Your task to perform on an android device: open app "Walmart Shopping & Grocery" (install if not already installed) and go to login screen Image 0: 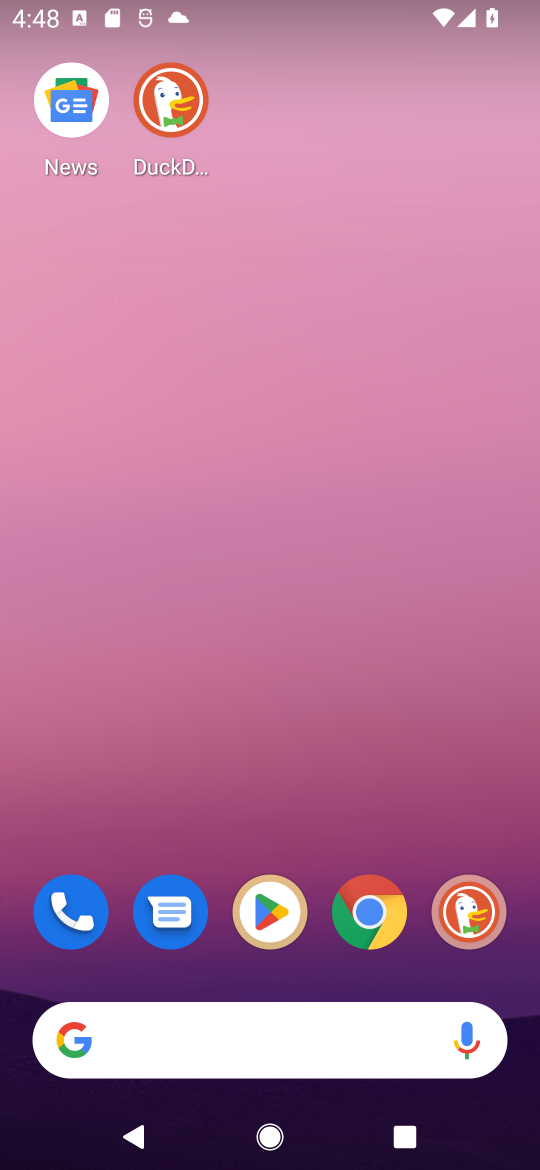
Step 0: drag from (239, 1043) to (384, 52)
Your task to perform on an android device: open app "Walmart Shopping & Grocery" (install if not already installed) and go to login screen Image 1: 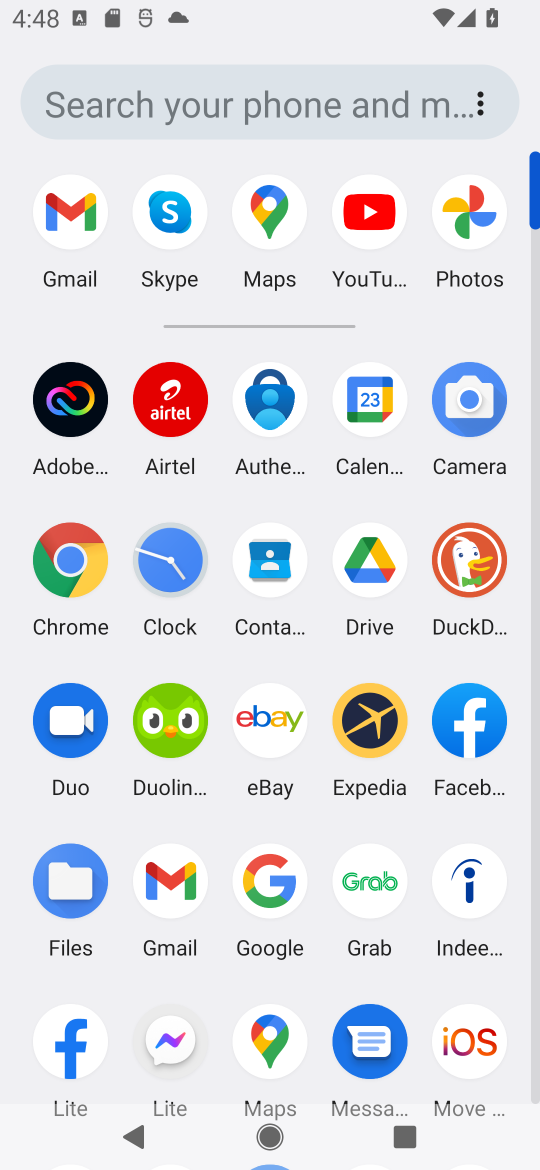
Step 1: drag from (193, 971) to (319, 452)
Your task to perform on an android device: open app "Walmart Shopping & Grocery" (install if not already installed) and go to login screen Image 2: 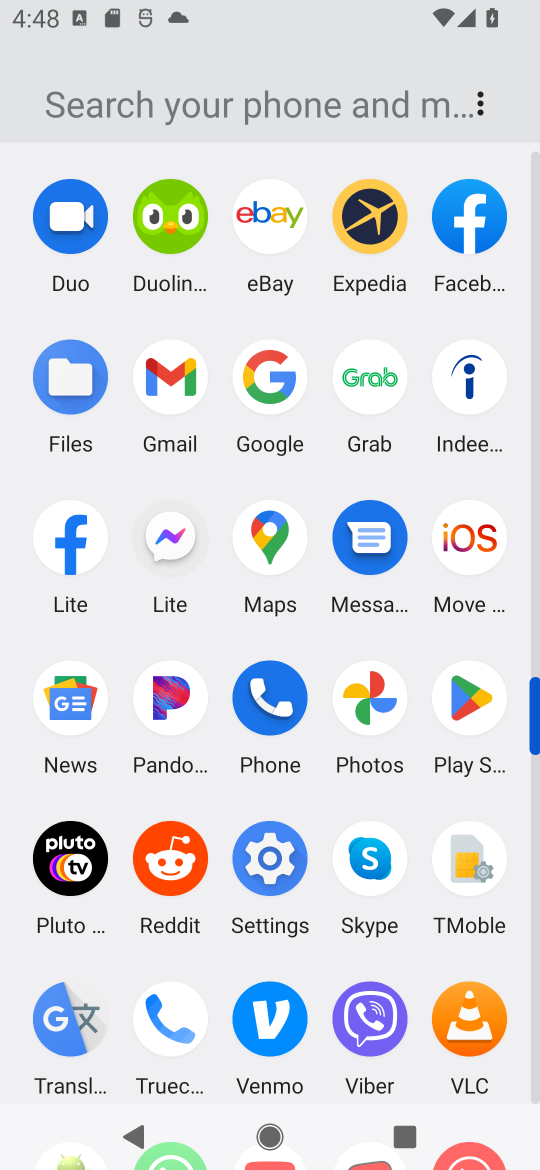
Step 2: drag from (307, 965) to (318, 645)
Your task to perform on an android device: open app "Walmart Shopping & Grocery" (install if not already installed) and go to login screen Image 3: 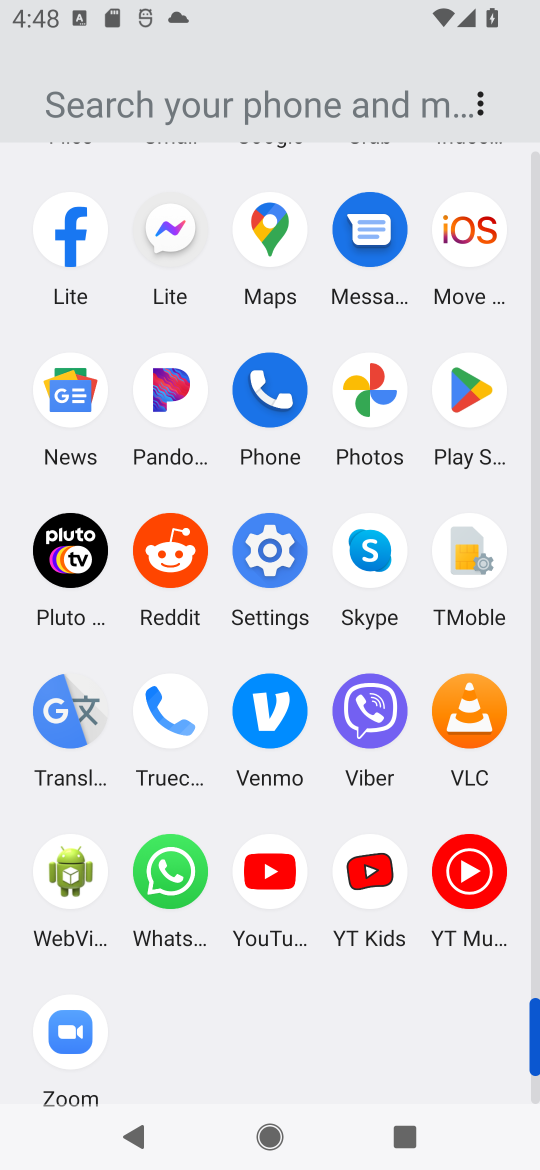
Step 3: click (467, 390)
Your task to perform on an android device: open app "Walmart Shopping & Grocery" (install if not already installed) and go to login screen Image 4: 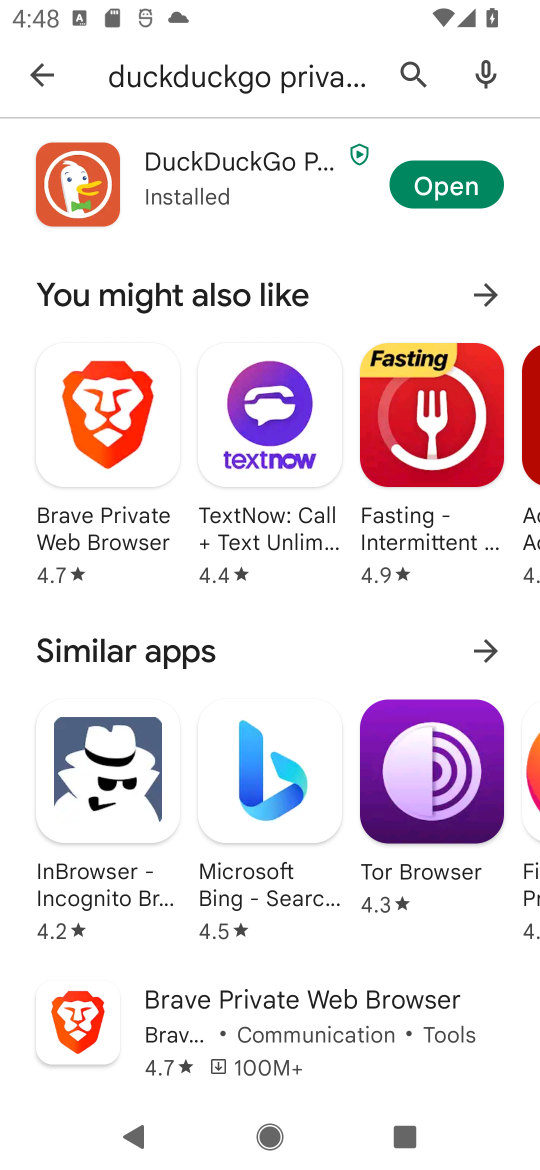
Step 4: press back button
Your task to perform on an android device: open app "Walmart Shopping & Grocery" (install if not already installed) and go to login screen Image 5: 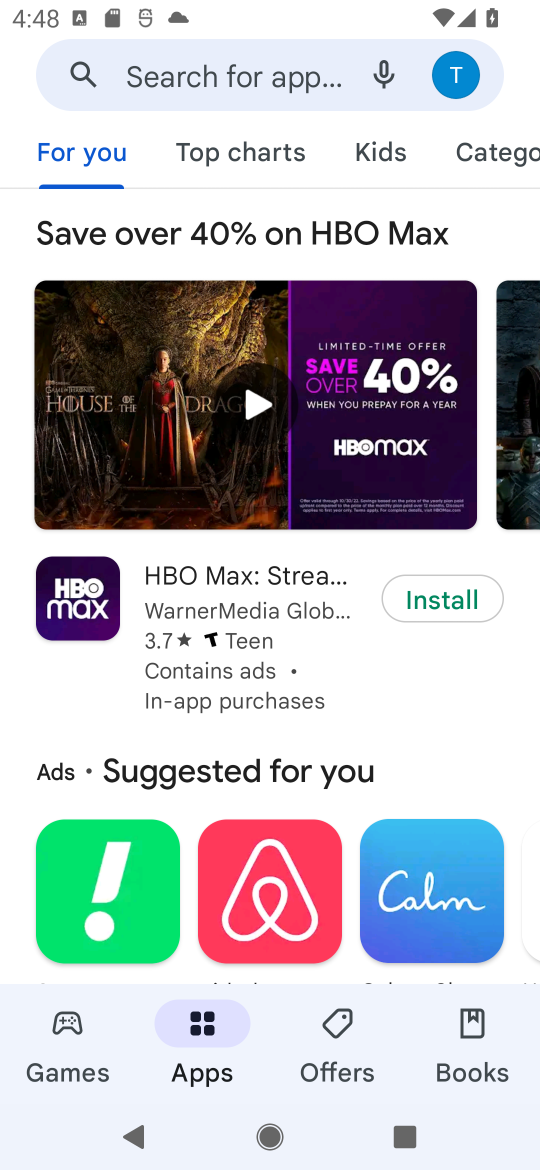
Step 5: click (264, 55)
Your task to perform on an android device: open app "Walmart Shopping & Grocery" (install if not already installed) and go to login screen Image 6: 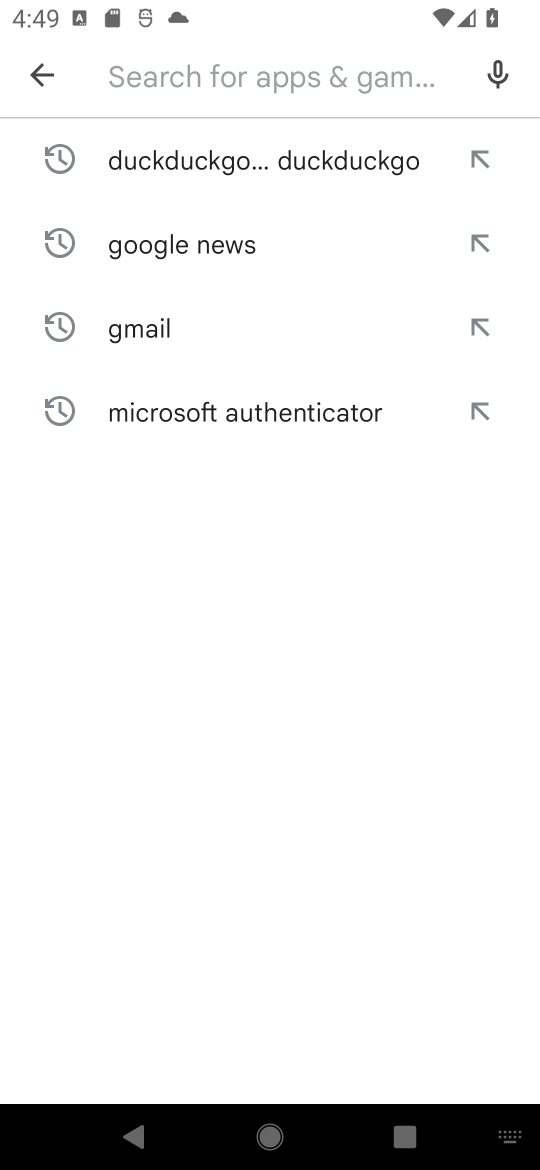
Step 6: type "Walmart Shopping & Grocery"
Your task to perform on an android device: open app "Walmart Shopping & Grocery" (install if not already installed) and go to login screen Image 7: 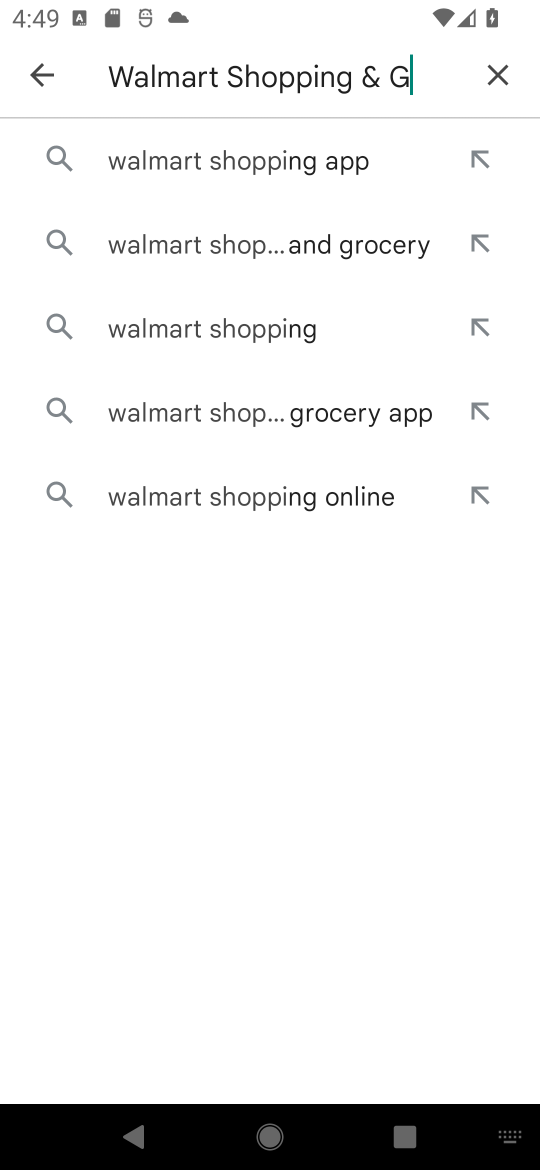
Step 7: type ""
Your task to perform on an android device: open app "Walmart Shopping & Grocery" (install if not already installed) and go to login screen Image 8: 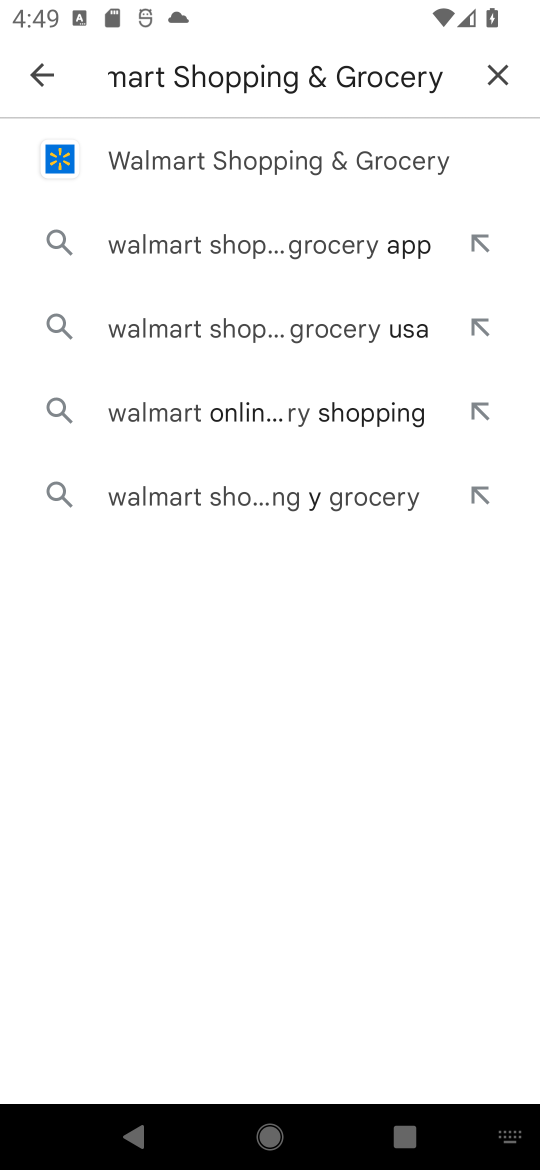
Step 8: click (145, 162)
Your task to perform on an android device: open app "Walmart Shopping & Grocery" (install if not already installed) and go to login screen Image 9: 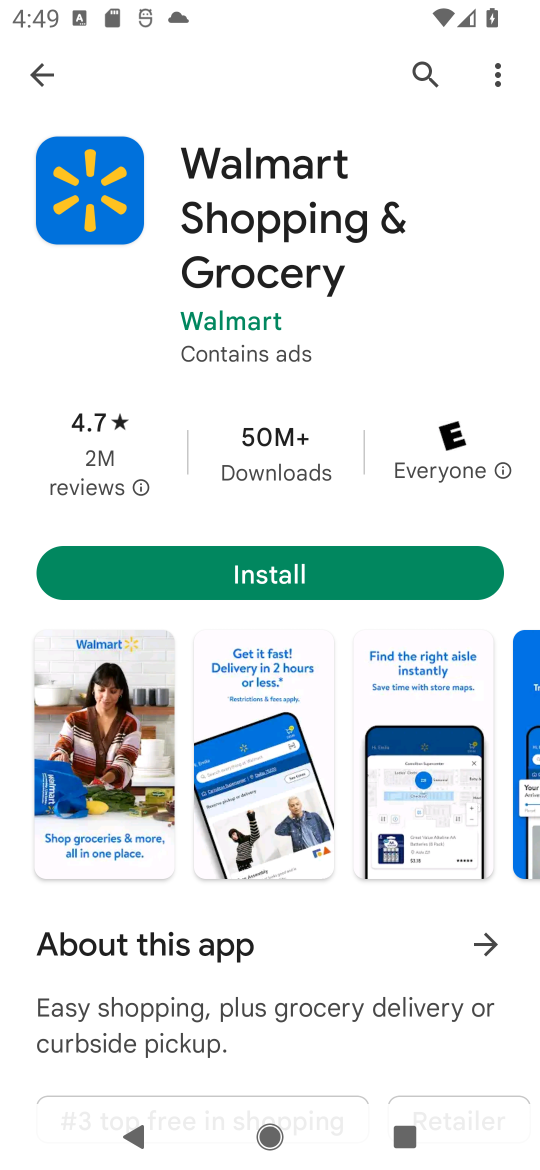
Step 9: click (245, 580)
Your task to perform on an android device: open app "Walmart Shopping & Grocery" (install if not already installed) and go to login screen Image 10: 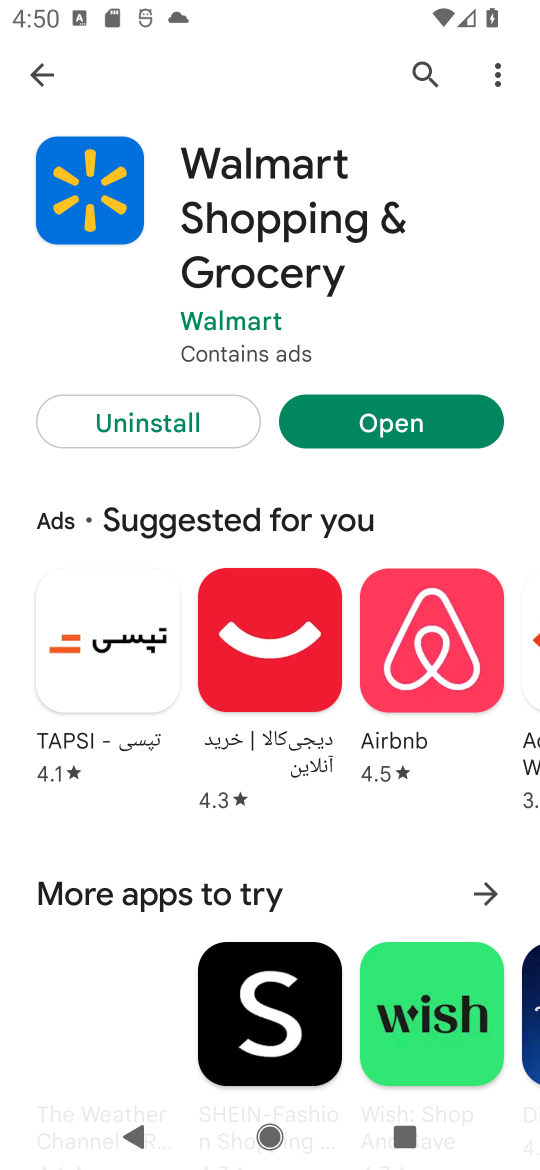
Step 10: click (413, 426)
Your task to perform on an android device: open app "Walmart Shopping & Grocery" (install if not already installed) and go to login screen Image 11: 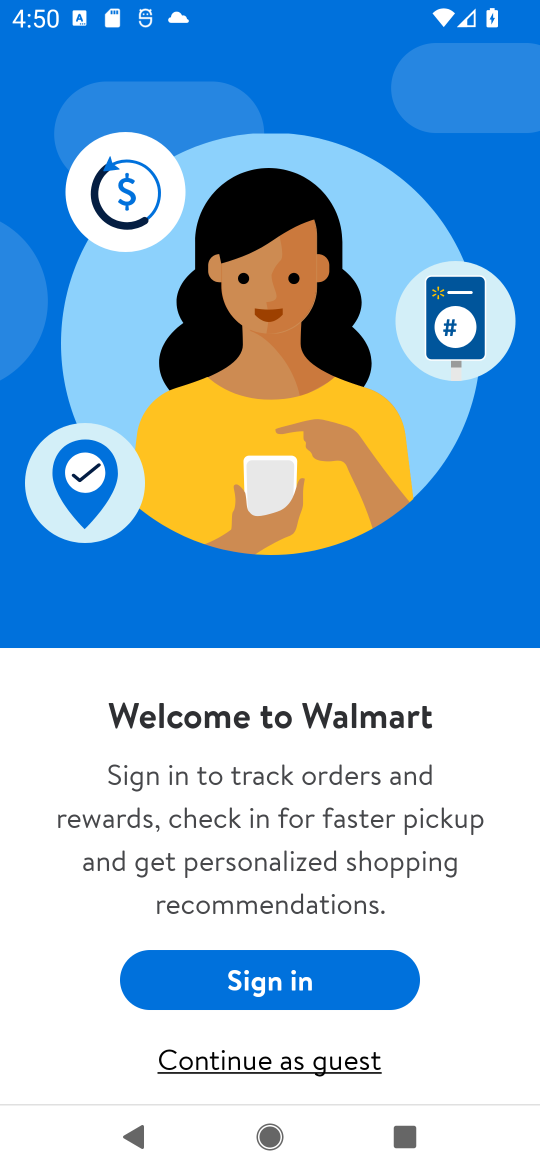
Step 11: click (284, 975)
Your task to perform on an android device: open app "Walmart Shopping & Grocery" (install if not already installed) and go to login screen Image 12: 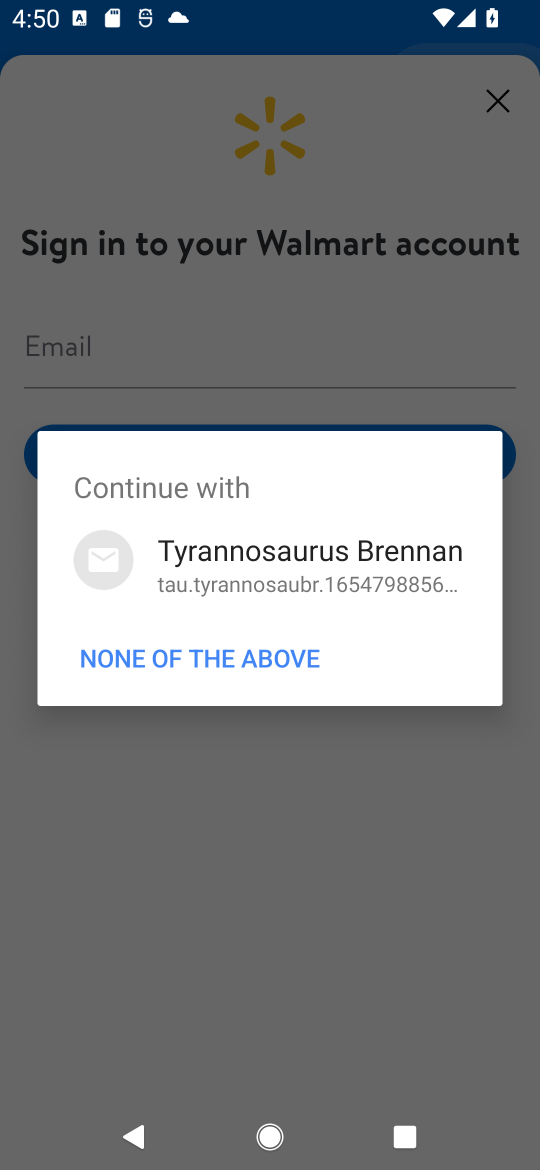
Step 12: click (253, 646)
Your task to perform on an android device: open app "Walmart Shopping & Grocery" (install if not already installed) and go to login screen Image 13: 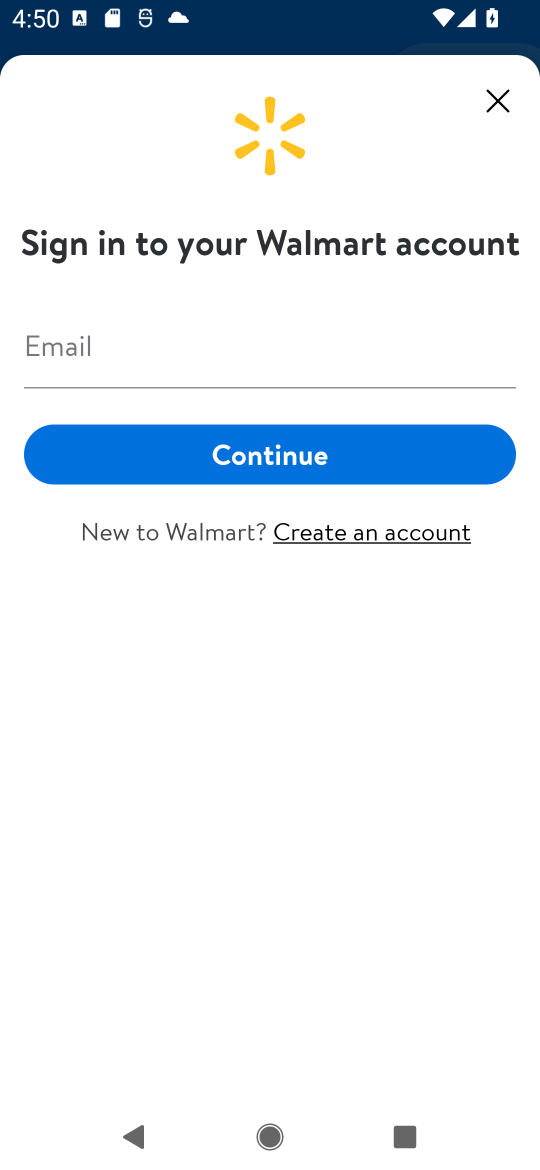
Step 13: task complete